Your task to perform on an android device: Do I have any events tomorrow? Image 0: 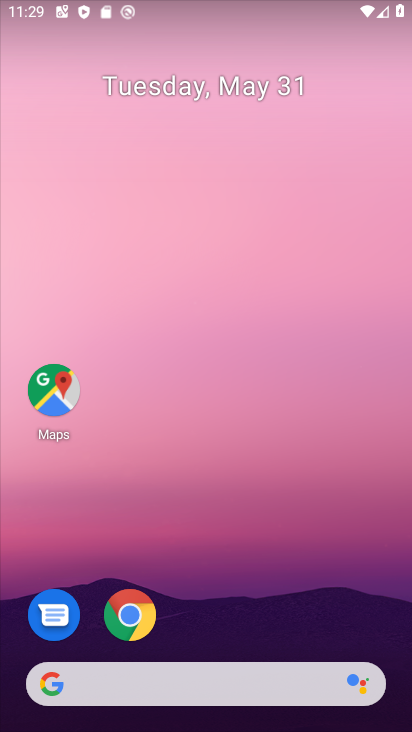
Step 0: task complete